Your task to perform on an android device: set an alarm Image 0: 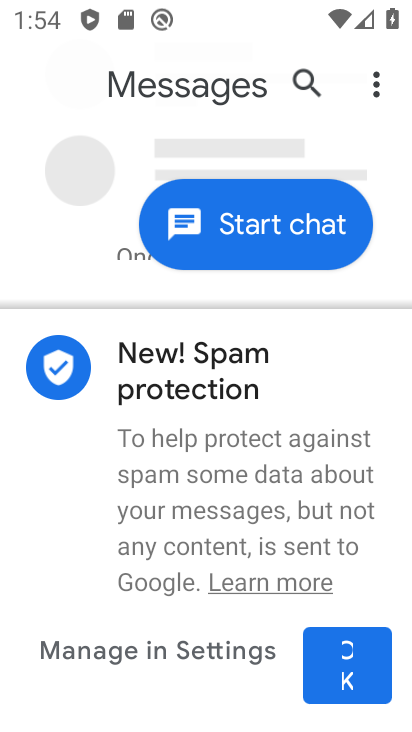
Step 0: press home button
Your task to perform on an android device: set an alarm Image 1: 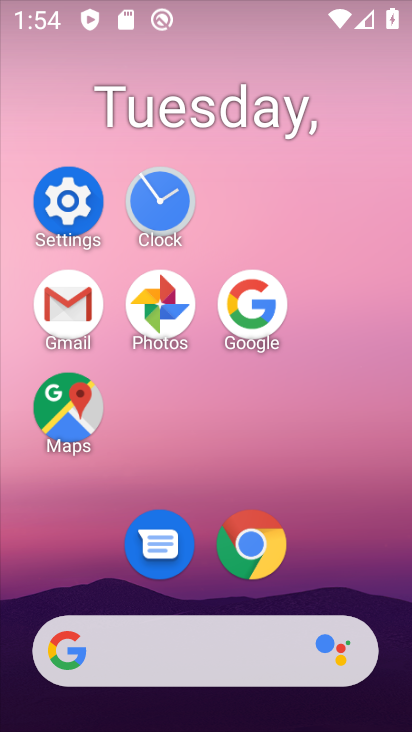
Step 1: click (169, 190)
Your task to perform on an android device: set an alarm Image 2: 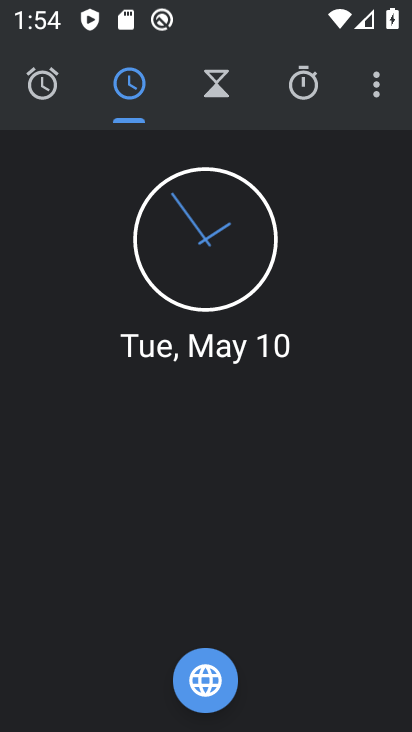
Step 2: click (46, 83)
Your task to perform on an android device: set an alarm Image 3: 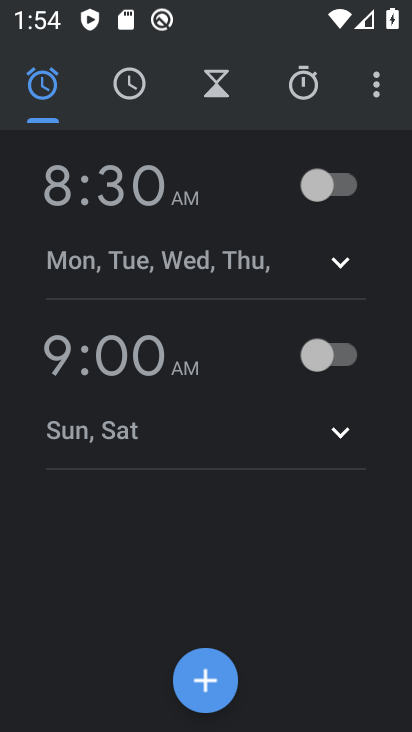
Step 3: click (308, 171)
Your task to perform on an android device: set an alarm Image 4: 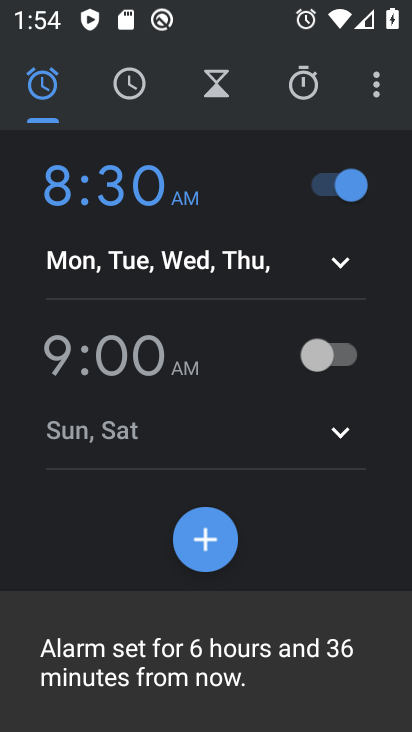
Step 4: task complete